Your task to perform on an android device: What is the news today? Image 0: 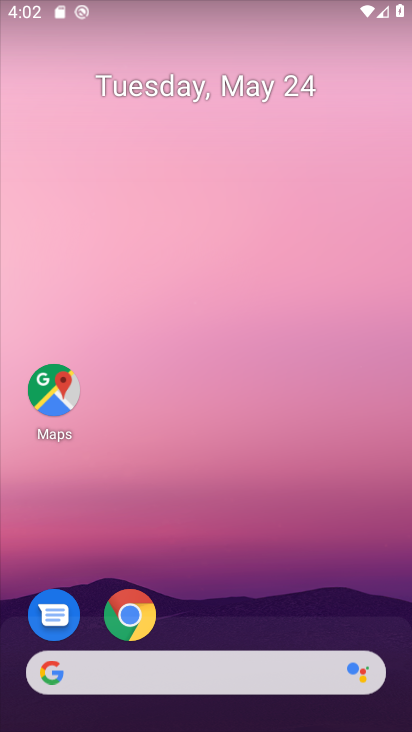
Step 0: click (156, 691)
Your task to perform on an android device: What is the news today? Image 1: 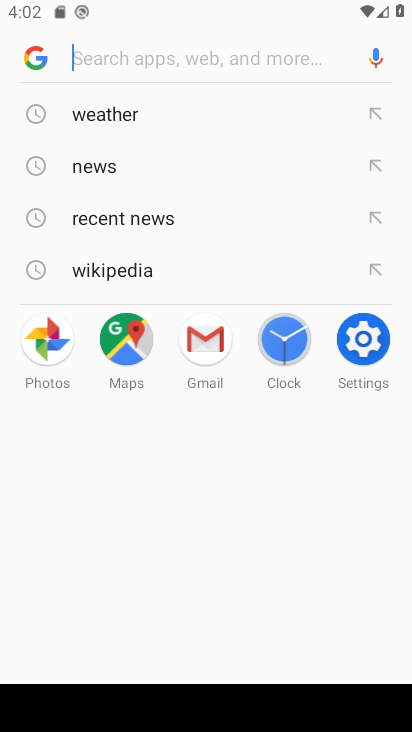
Step 1: click (125, 54)
Your task to perform on an android device: What is the news today? Image 2: 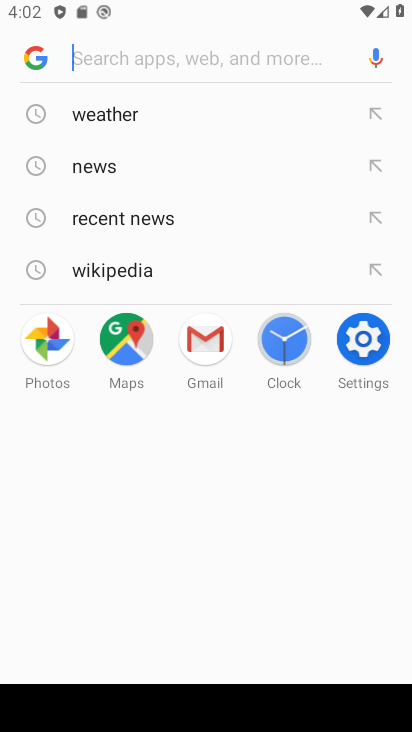
Step 2: type "news today"
Your task to perform on an android device: What is the news today? Image 3: 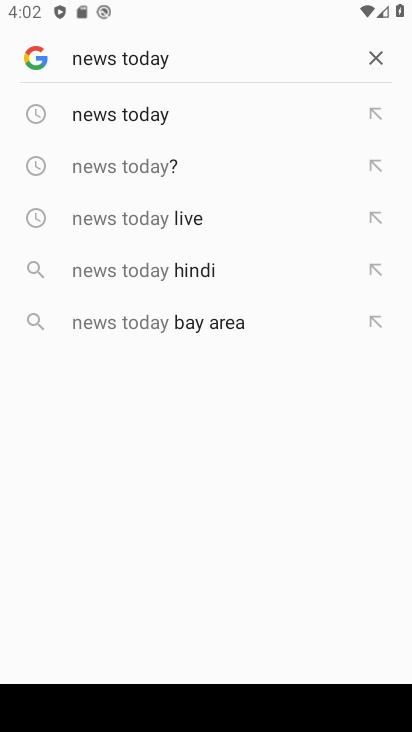
Step 3: click (145, 111)
Your task to perform on an android device: What is the news today? Image 4: 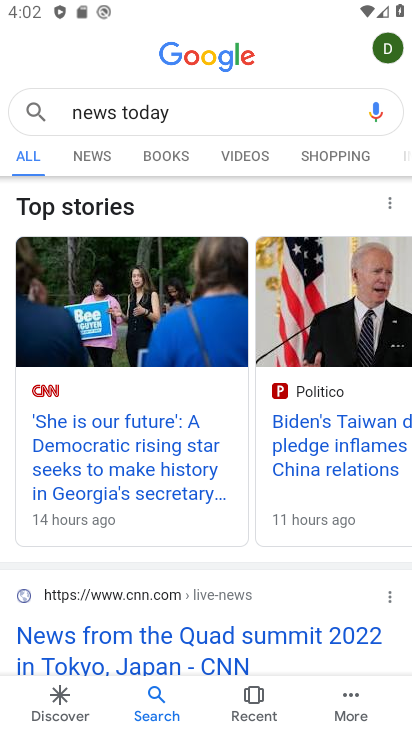
Step 4: task complete